Your task to perform on an android device: open app "Microsoft Authenticator" Image 0: 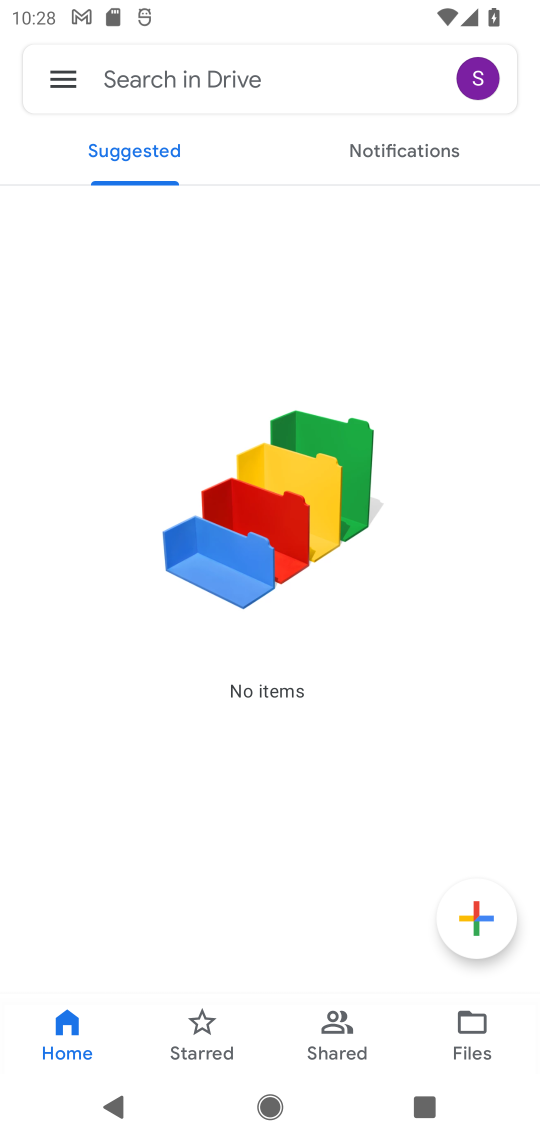
Step 0: press back button
Your task to perform on an android device: open app "Microsoft Authenticator" Image 1: 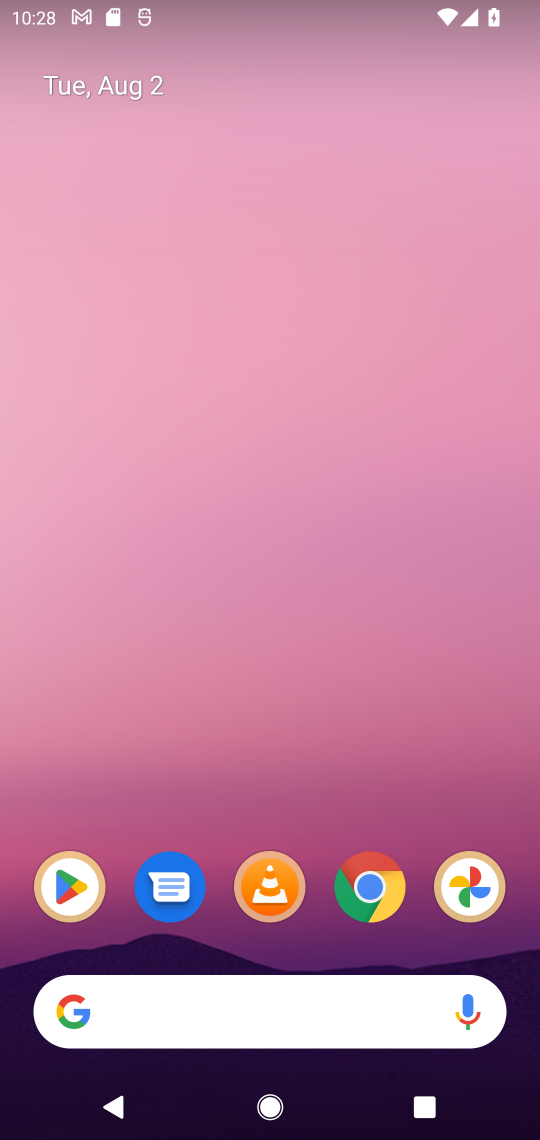
Step 1: drag from (281, 951) to (288, 92)
Your task to perform on an android device: open app "Microsoft Authenticator" Image 2: 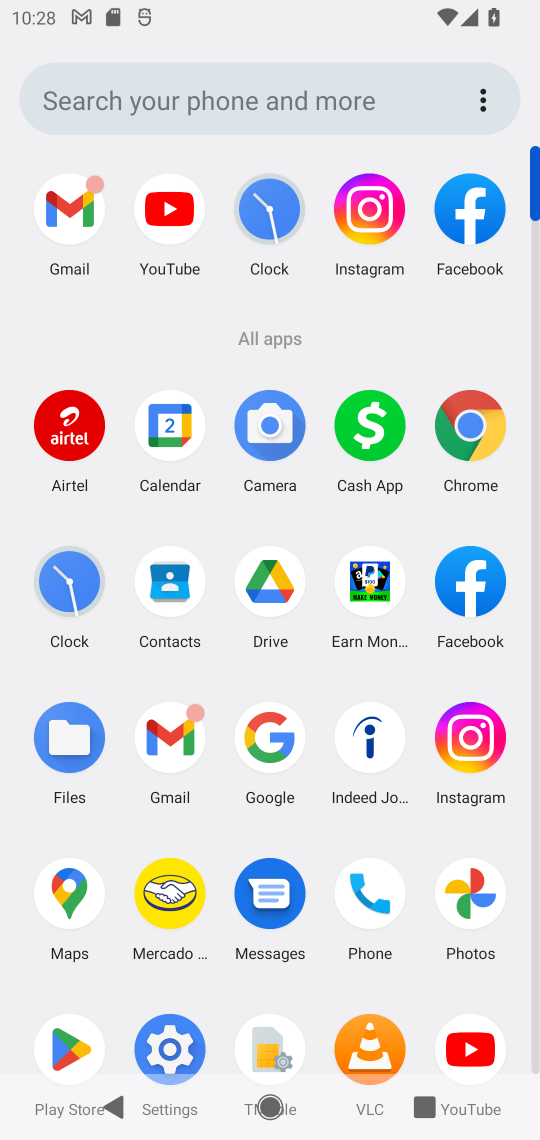
Step 2: click (71, 1061)
Your task to perform on an android device: open app "Microsoft Authenticator" Image 3: 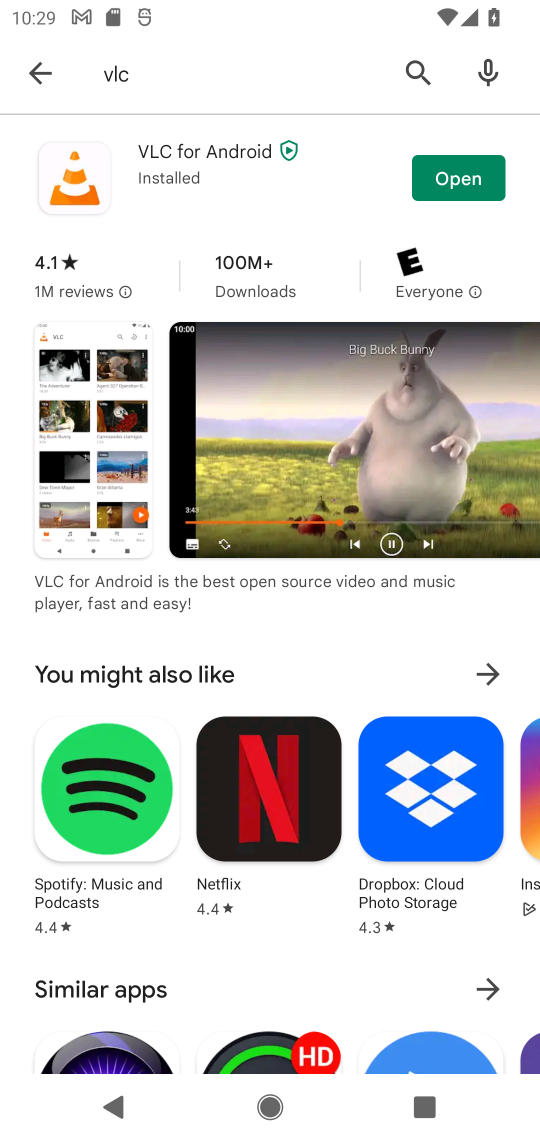
Step 3: click (39, 77)
Your task to perform on an android device: open app "Microsoft Authenticator" Image 4: 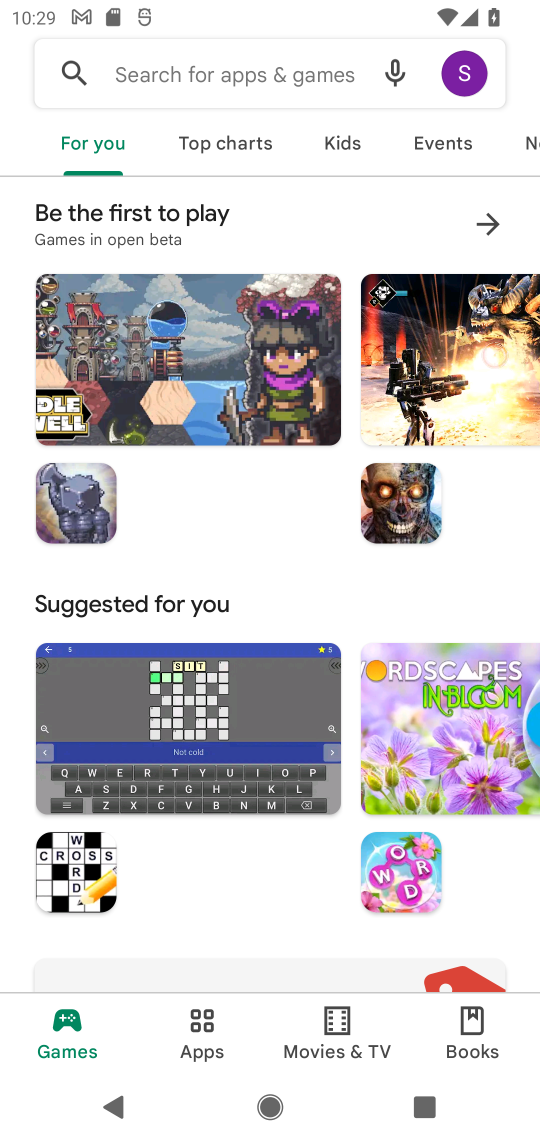
Step 4: click (162, 83)
Your task to perform on an android device: open app "Microsoft Authenticator" Image 5: 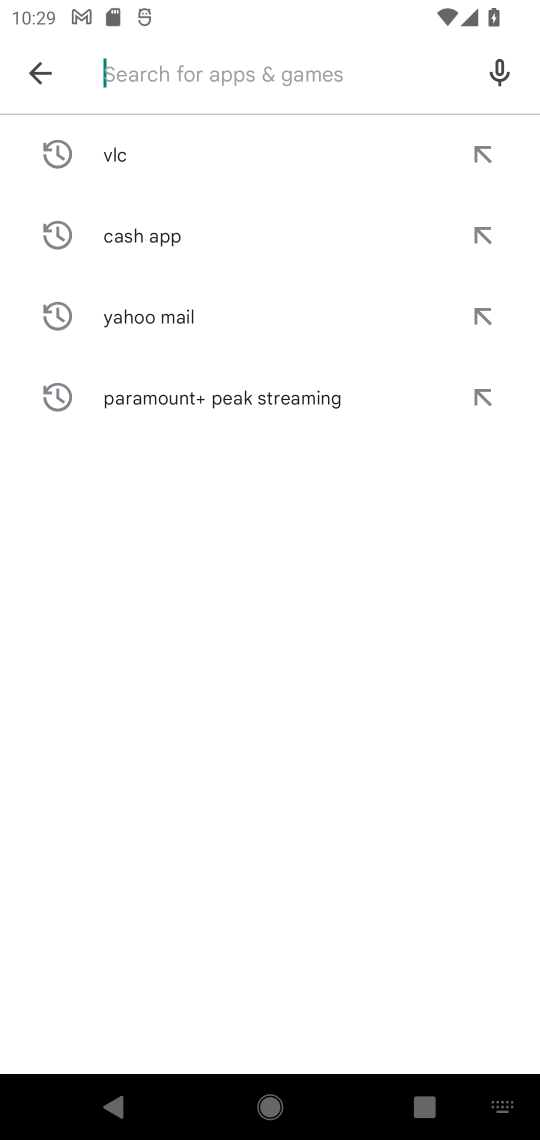
Step 5: type "Microsoft Authenticator"
Your task to perform on an android device: open app "Microsoft Authenticator" Image 6: 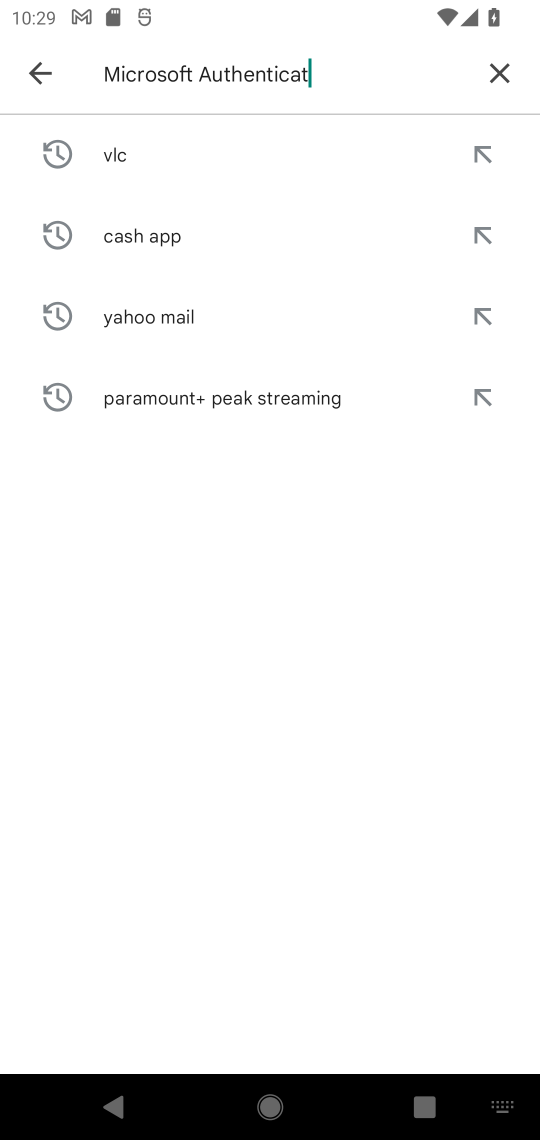
Step 6: type ""
Your task to perform on an android device: open app "Microsoft Authenticator" Image 7: 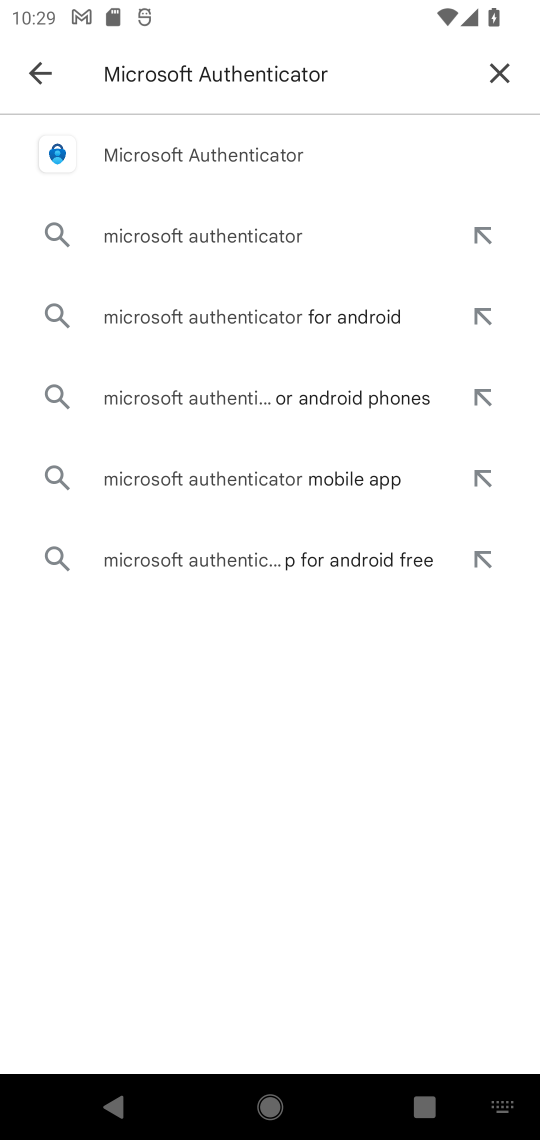
Step 7: click (238, 147)
Your task to perform on an android device: open app "Microsoft Authenticator" Image 8: 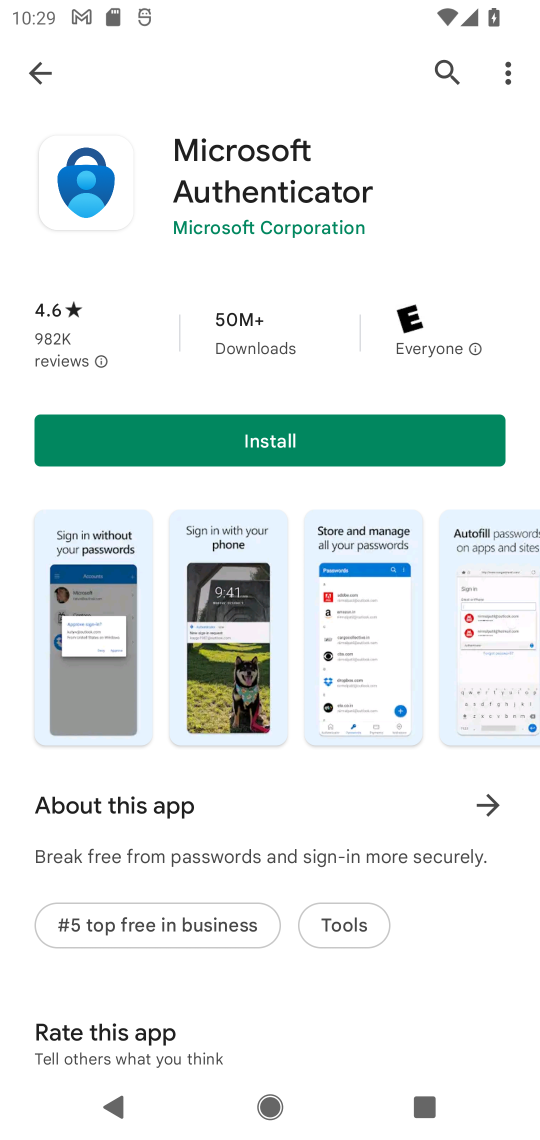
Step 8: task complete